Your task to perform on an android device: add a contact in the contacts app Image 0: 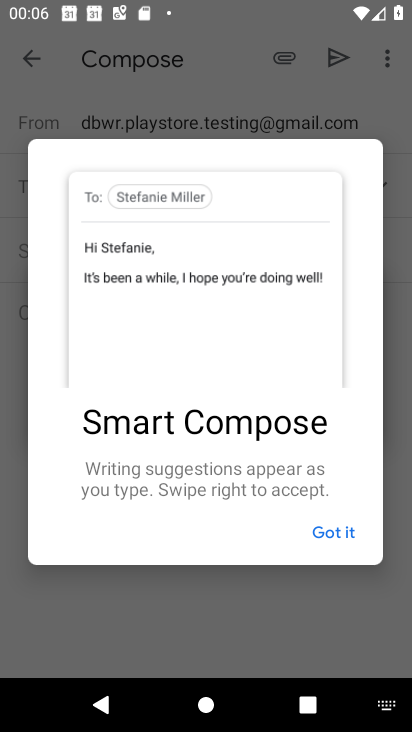
Step 0: press home button
Your task to perform on an android device: add a contact in the contacts app Image 1: 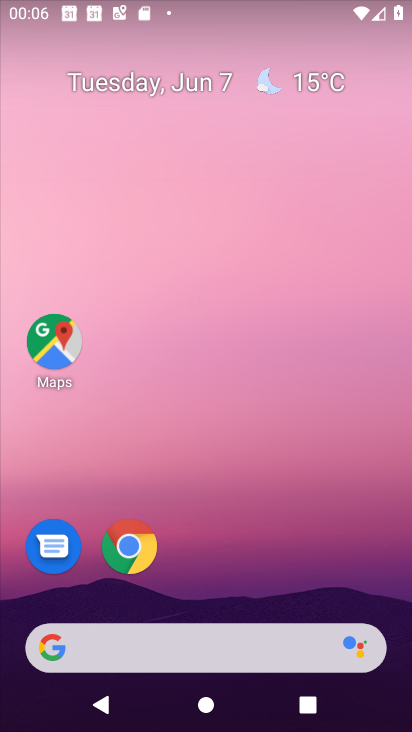
Step 1: drag from (186, 557) to (258, 184)
Your task to perform on an android device: add a contact in the contacts app Image 2: 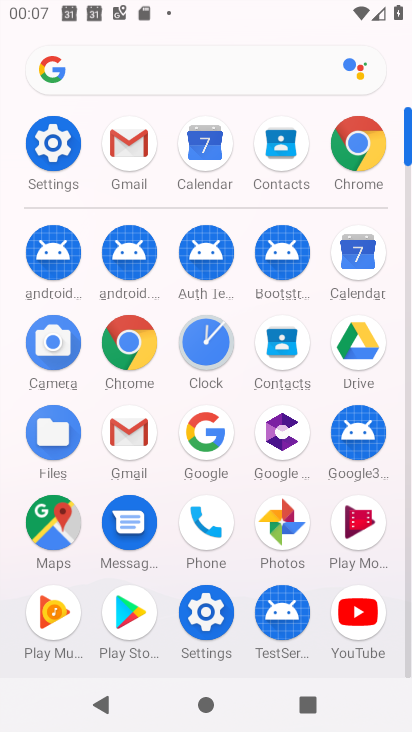
Step 2: click (277, 374)
Your task to perform on an android device: add a contact in the contacts app Image 3: 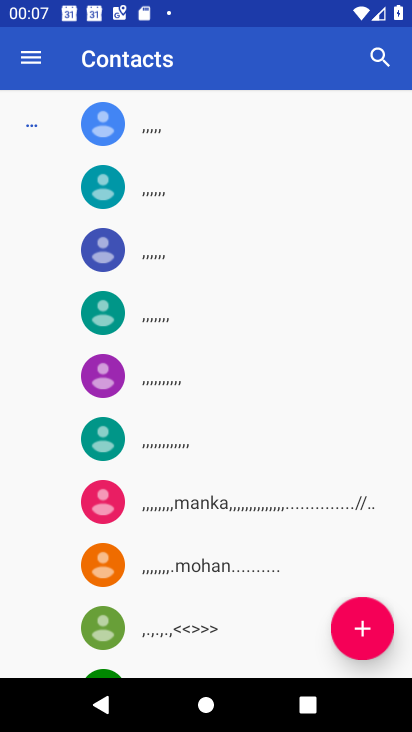
Step 3: click (358, 645)
Your task to perform on an android device: add a contact in the contacts app Image 4: 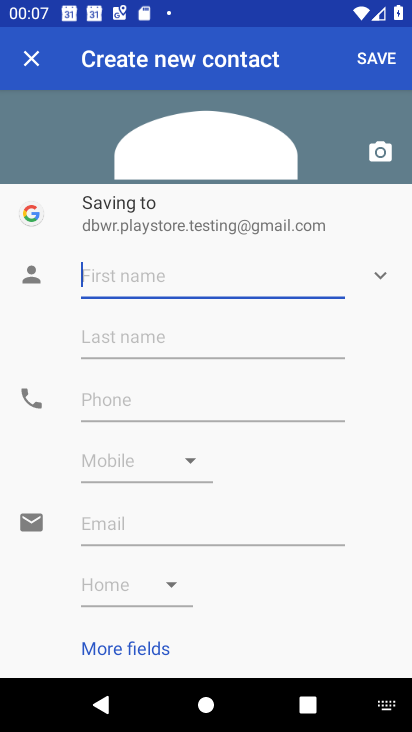
Step 4: type "munirka"
Your task to perform on an android device: add a contact in the contacts app Image 5: 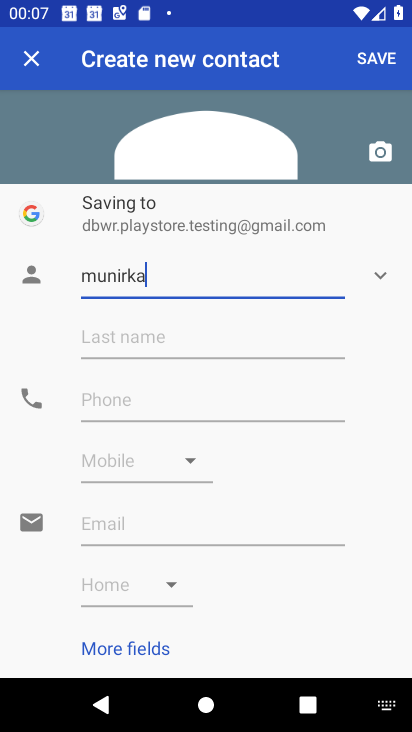
Step 5: click (367, 55)
Your task to perform on an android device: add a contact in the contacts app Image 6: 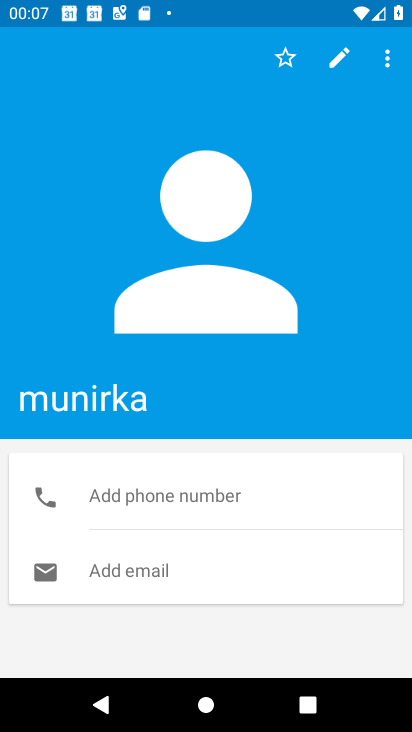
Step 6: task complete